Your task to perform on an android device: Open notification settings Image 0: 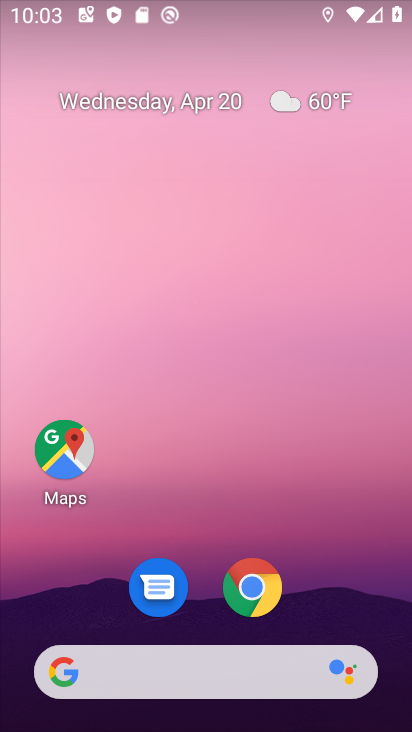
Step 0: drag from (320, 570) to (185, 131)
Your task to perform on an android device: Open notification settings Image 1: 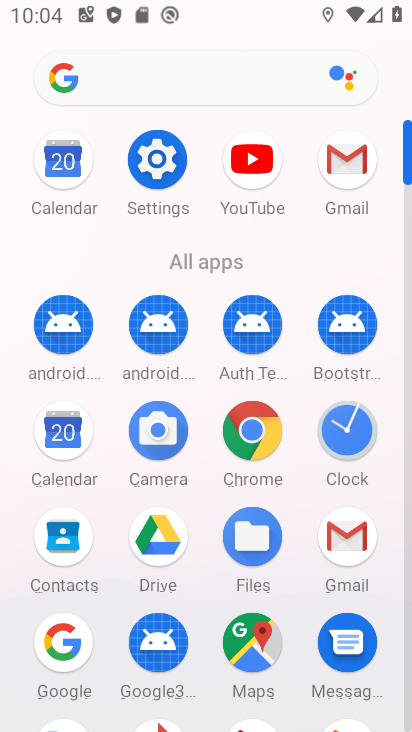
Step 1: click (165, 155)
Your task to perform on an android device: Open notification settings Image 2: 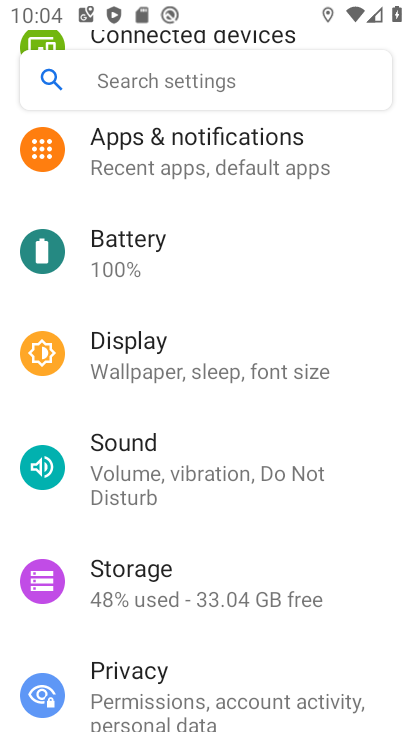
Step 2: click (220, 154)
Your task to perform on an android device: Open notification settings Image 3: 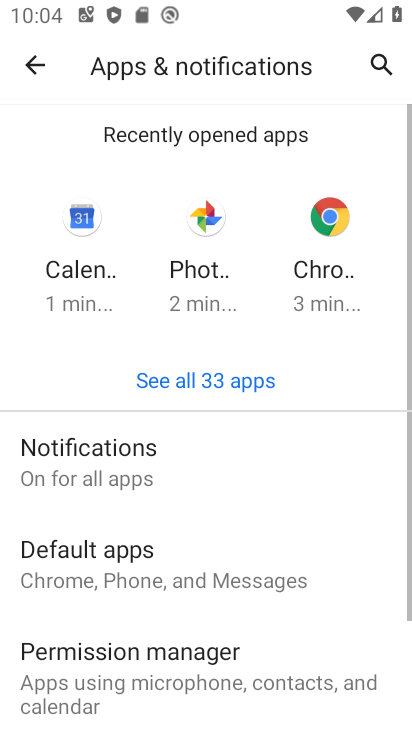
Step 3: click (49, 474)
Your task to perform on an android device: Open notification settings Image 4: 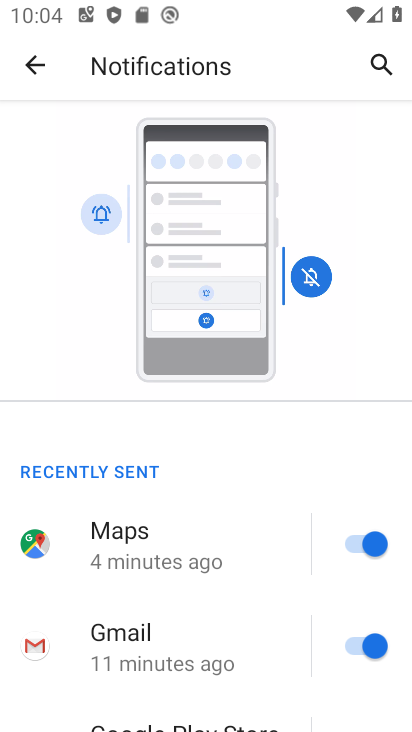
Step 4: drag from (290, 671) to (274, 217)
Your task to perform on an android device: Open notification settings Image 5: 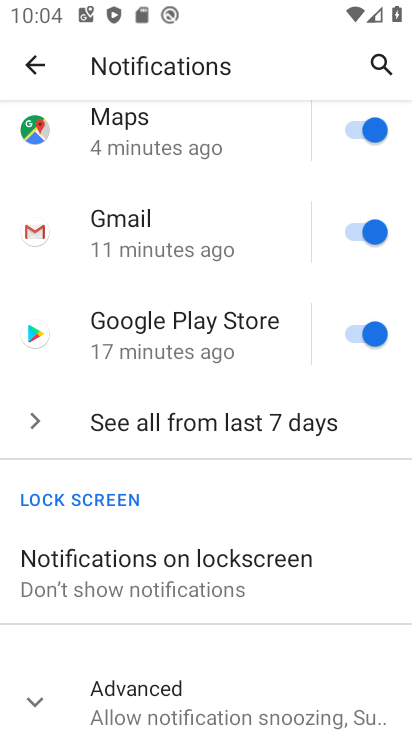
Step 5: drag from (278, 655) to (249, 289)
Your task to perform on an android device: Open notification settings Image 6: 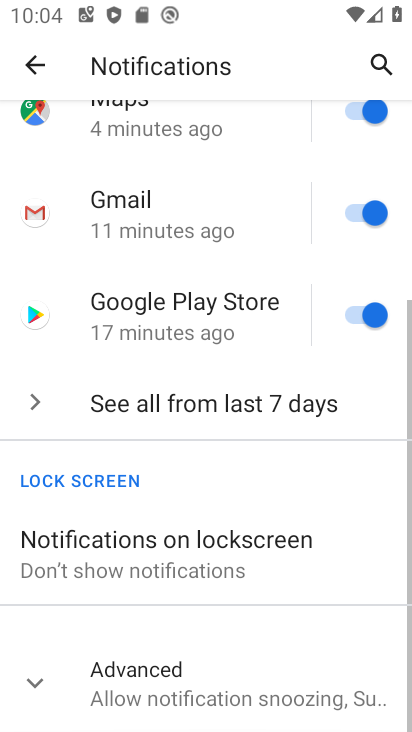
Step 6: click (154, 688)
Your task to perform on an android device: Open notification settings Image 7: 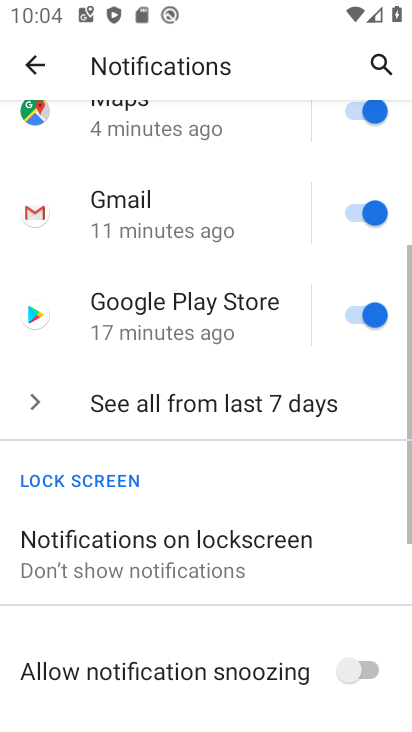
Step 7: task complete